Your task to perform on an android device: Empty the shopping cart on ebay. Search for macbook pro 15 inch on ebay, select the first entry, add it to the cart, then select checkout. Image 0: 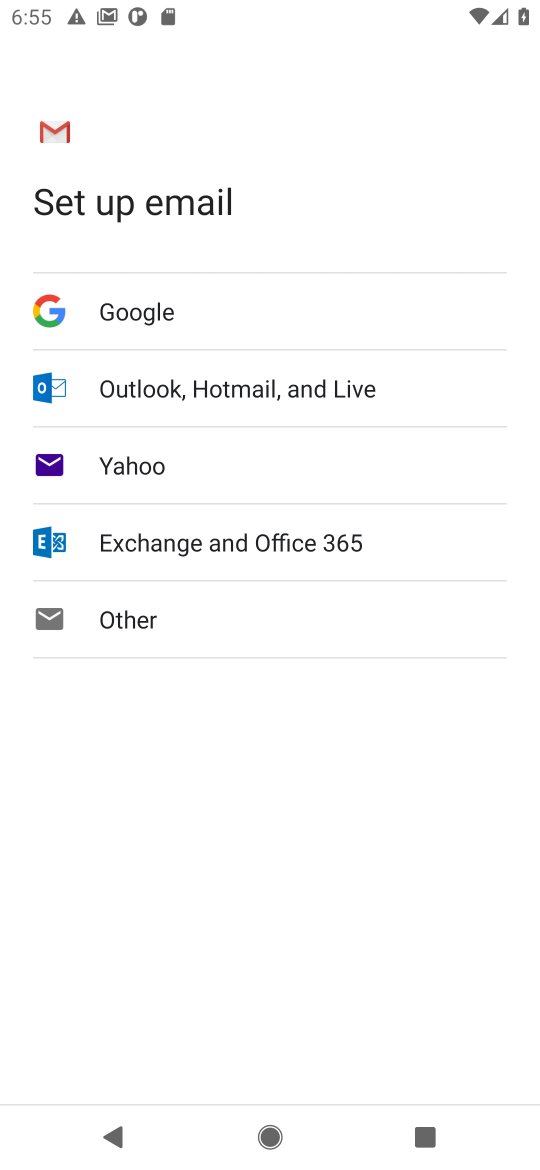
Step 0: press home button
Your task to perform on an android device: Empty the shopping cart on ebay. Search for macbook pro 15 inch on ebay, select the first entry, add it to the cart, then select checkout. Image 1: 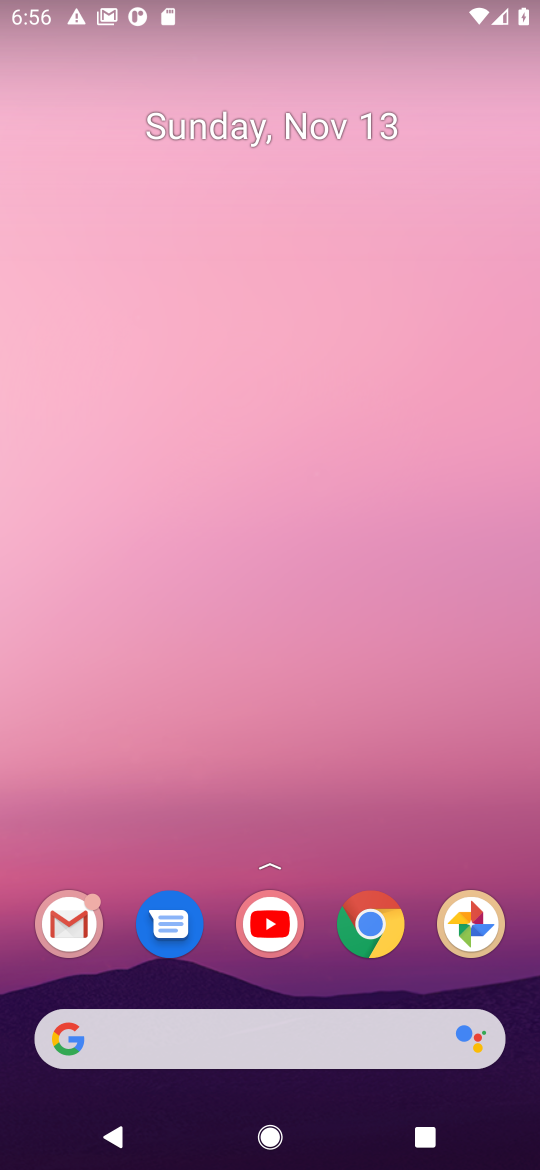
Step 1: click (371, 941)
Your task to perform on an android device: Empty the shopping cart on ebay. Search for macbook pro 15 inch on ebay, select the first entry, add it to the cart, then select checkout. Image 2: 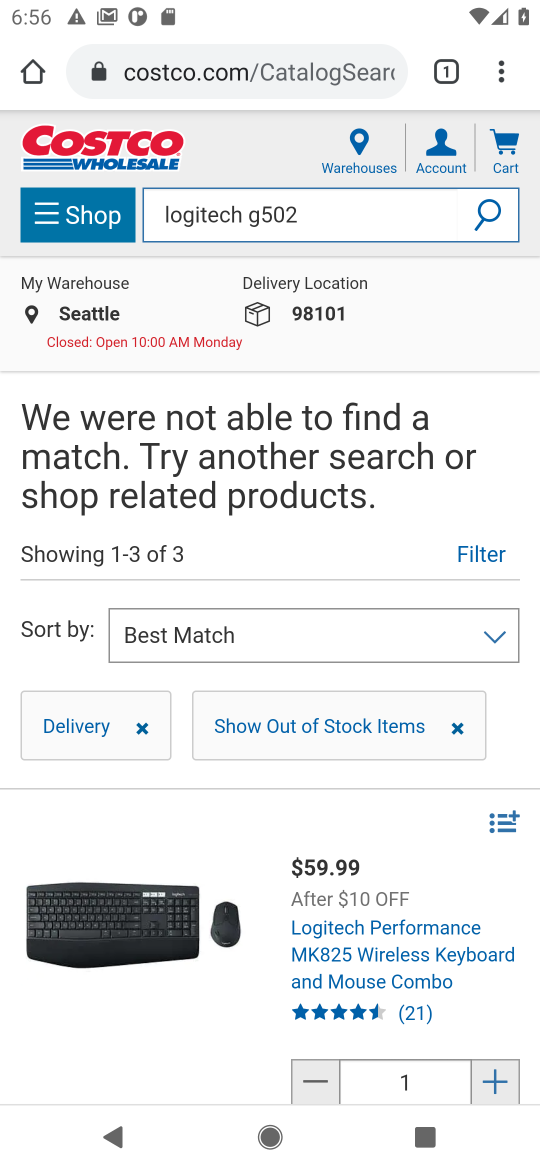
Step 2: click (229, 76)
Your task to perform on an android device: Empty the shopping cart on ebay. Search for macbook pro 15 inch on ebay, select the first entry, add it to the cart, then select checkout. Image 3: 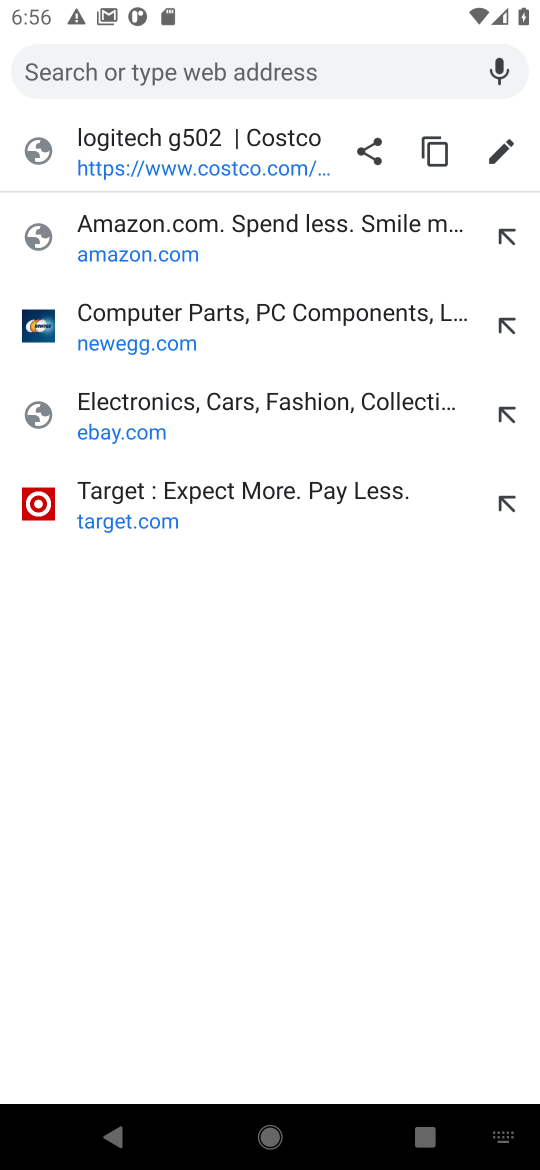
Step 3: click (109, 408)
Your task to perform on an android device: Empty the shopping cart on ebay. Search for macbook pro 15 inch on ebay, select the first entry, add it to the cart, then select checkout. Image 4: 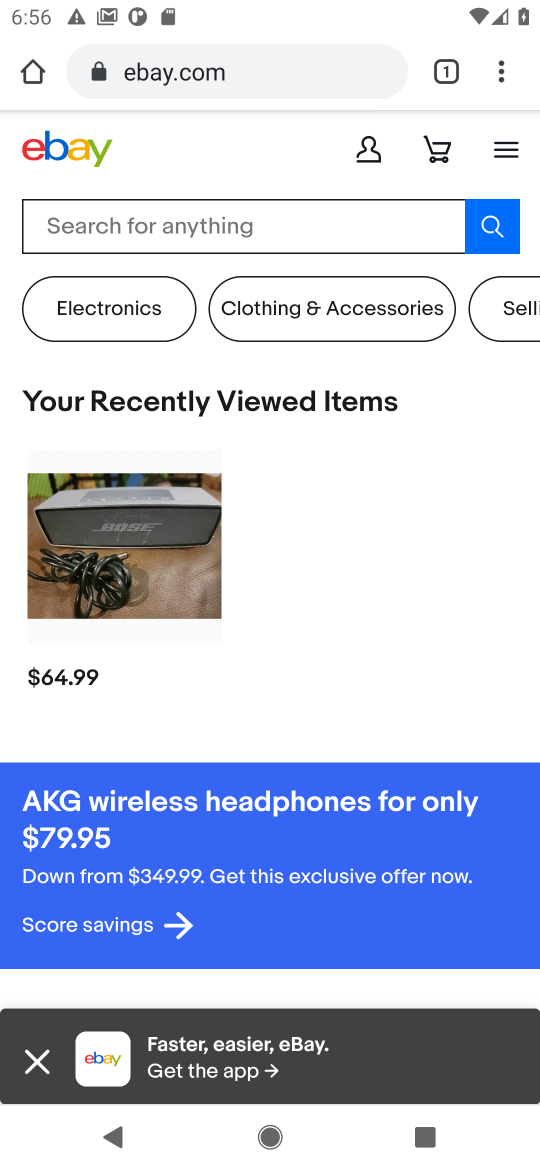
Step 4: click (438, 146)
Your task to perform on an android device: Empty the shopping cart on ebay. Search for macbook pro 15 inch on ebay, select the first entry, add it to the cart, then select checkout. Image 5: 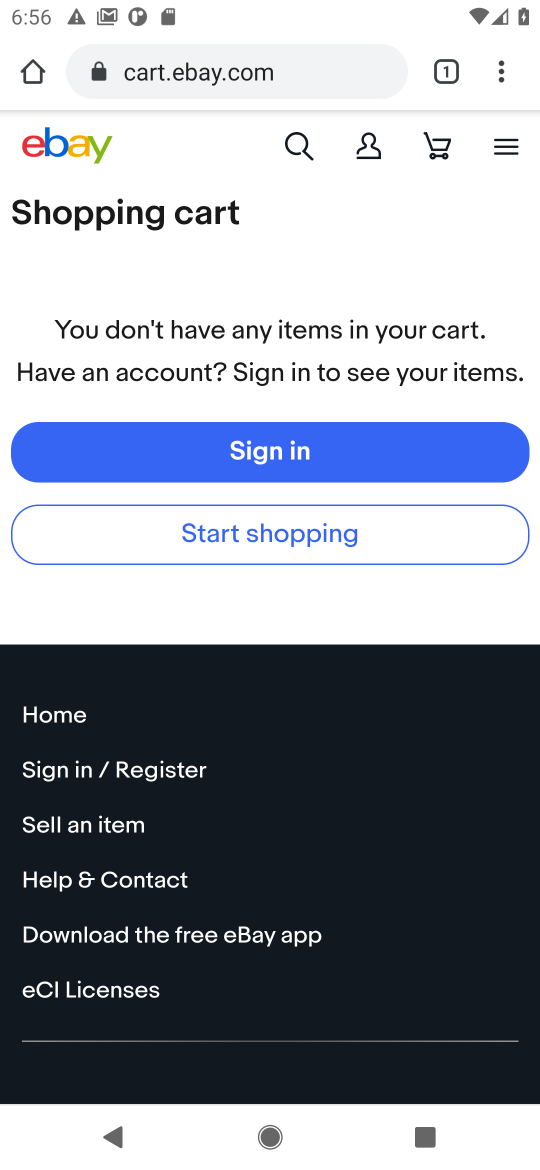
Step 5: click (300, 149)
Your task to perform on an android device: Empty the shopping cart on ebay. Search for macbook pro 15 inch on ebay, select the first entry, add it to the cart, then select checkout. Image 6: 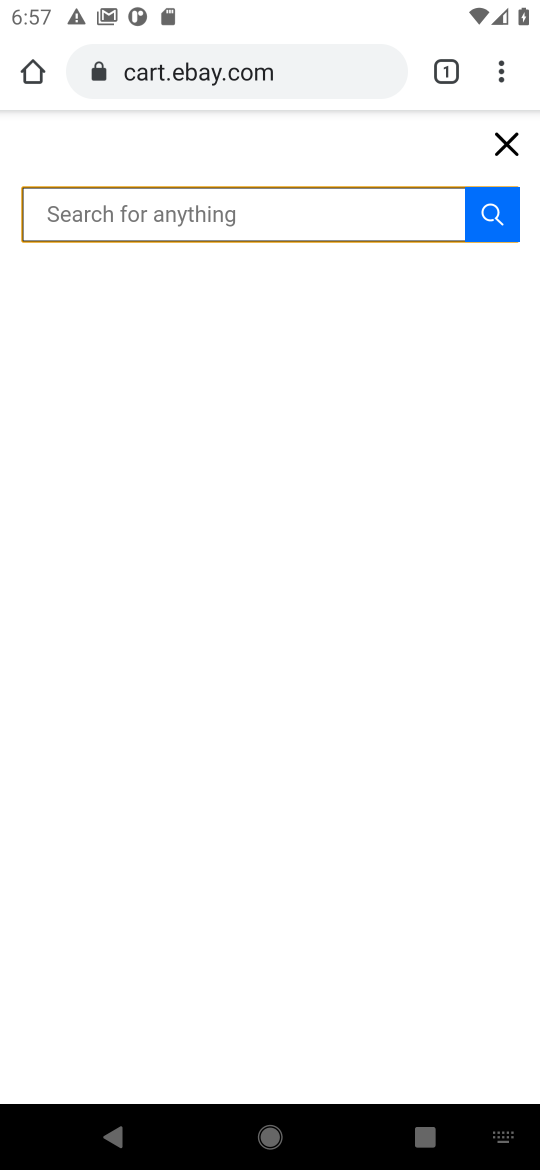
Step 6: type "macbook pro 15 inch"
Your task to perform on an android device: Empty the shopping cart on ebay. Search for macbook pro 15 inch on ebay, select the first entry, add it to the cart, then select checkout. Image 7: 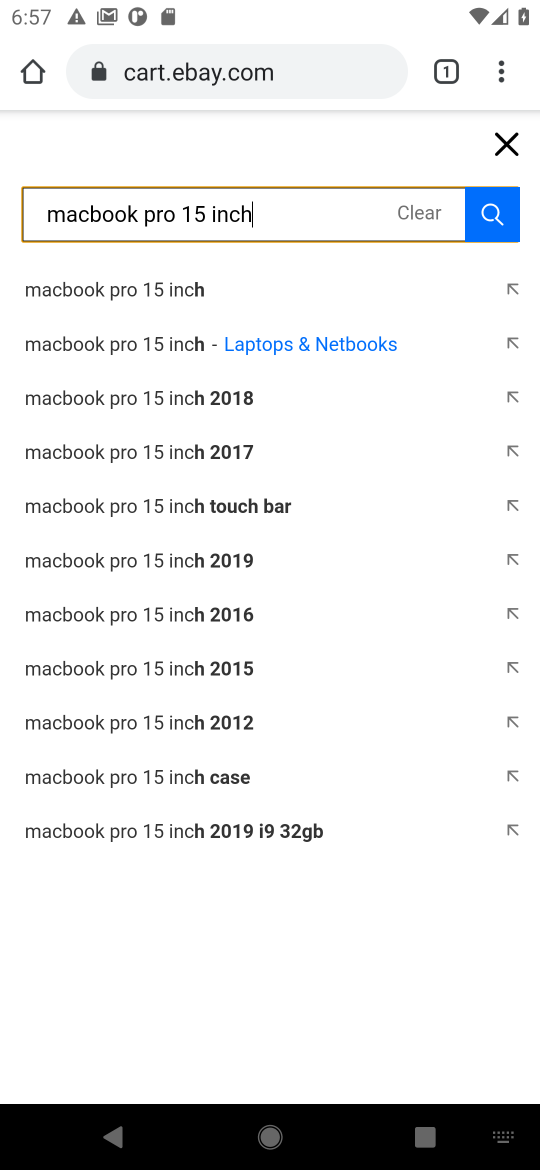
Step 7: click (117, 294)
Your task to perform on an android device: Empty the shopping cart on ebay. Search for macbook pro 15 inch on ebay, select the first entry, add it to the cart, then select checkout. Image 8: 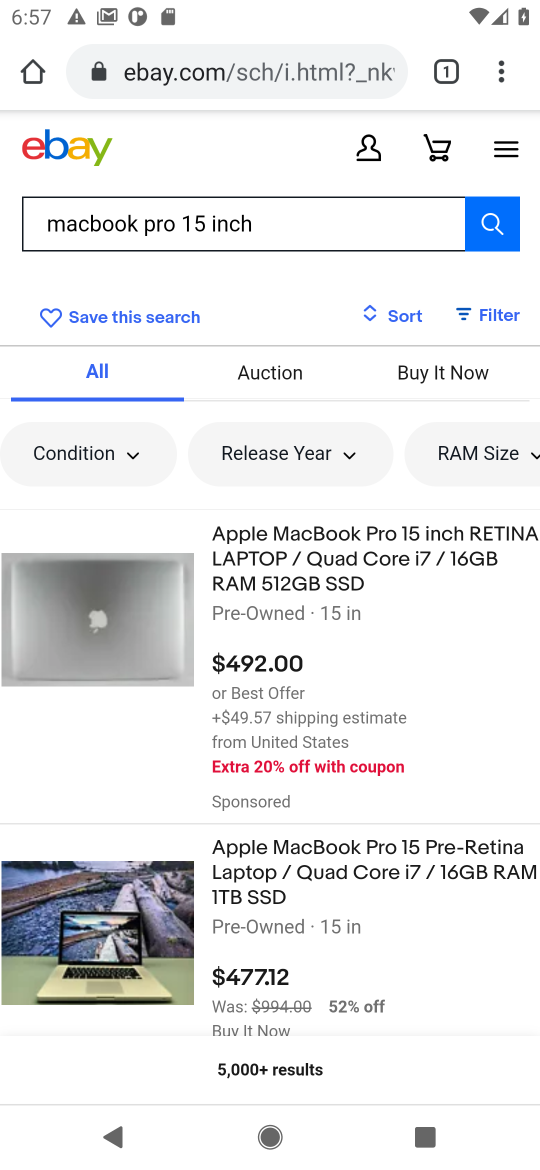
Step 8: click (215, 619)
Your task to perform on an android device: Empty the shopping cart on ebay. Search for macbook pro 15 inch on ebay, select the first entry, add it to the cart, then select checkout. Image 9: 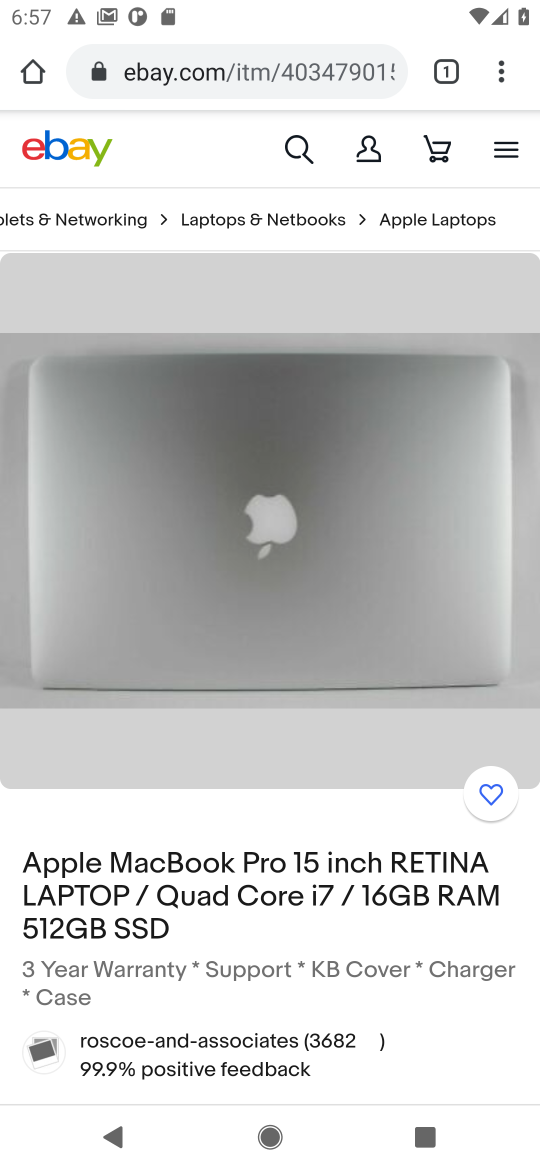
Step 9: drag from (275, 833) to (282, 286)
Your task to perform on an android device: Empty the shopping cart on ebay. Search for macbook pro 15 inch on ebay, select the first entry, add it to the cart, then select checkout. Image 10: 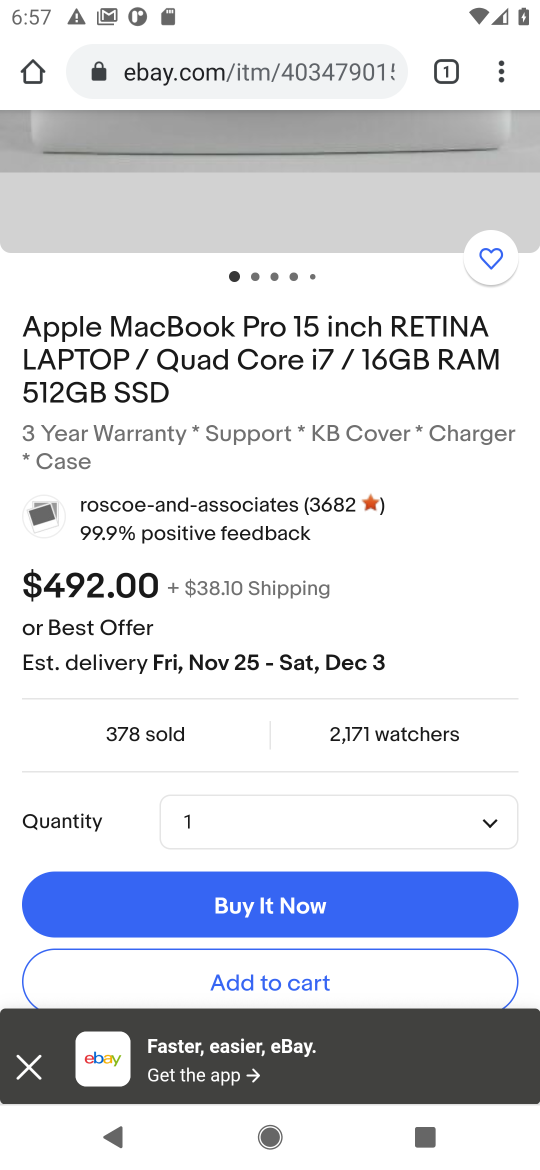
Step 10: click (243, 984)
Your task to perform on an android device: Empty the shopping cart on ebay. Search for macbook pro 15 inch on ebay, select the first entry, add it to the cart, then select checkout. Image 11: 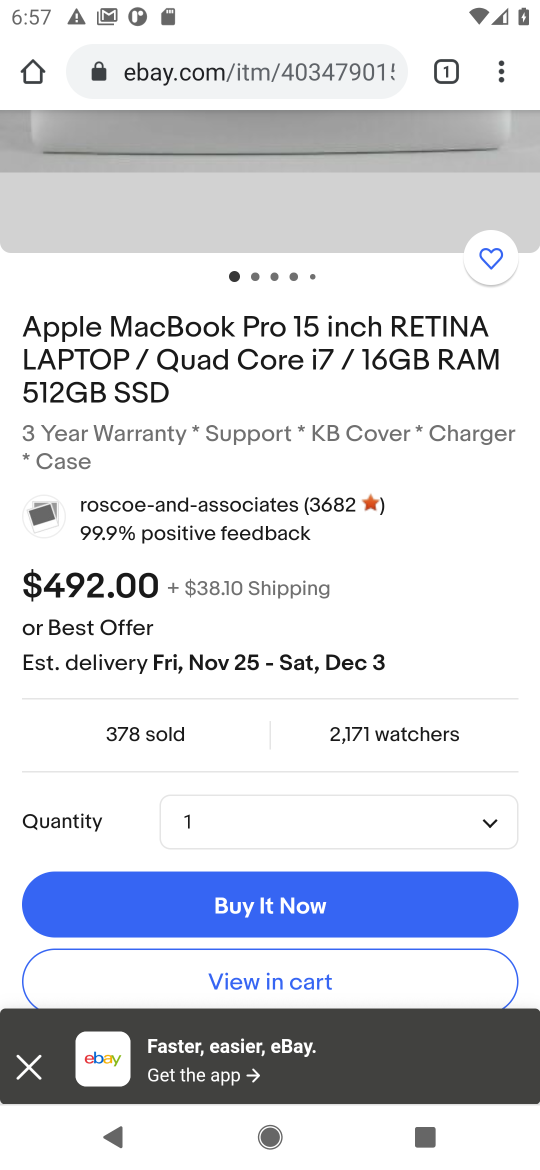
Step 11: click (243, 982)
Your task to perform on an android device: Empty the shopping cart on ebay. Search for macbook pro 15 inch on ebay, select the first entry, add it to the cart, then select checkout. Image 12: 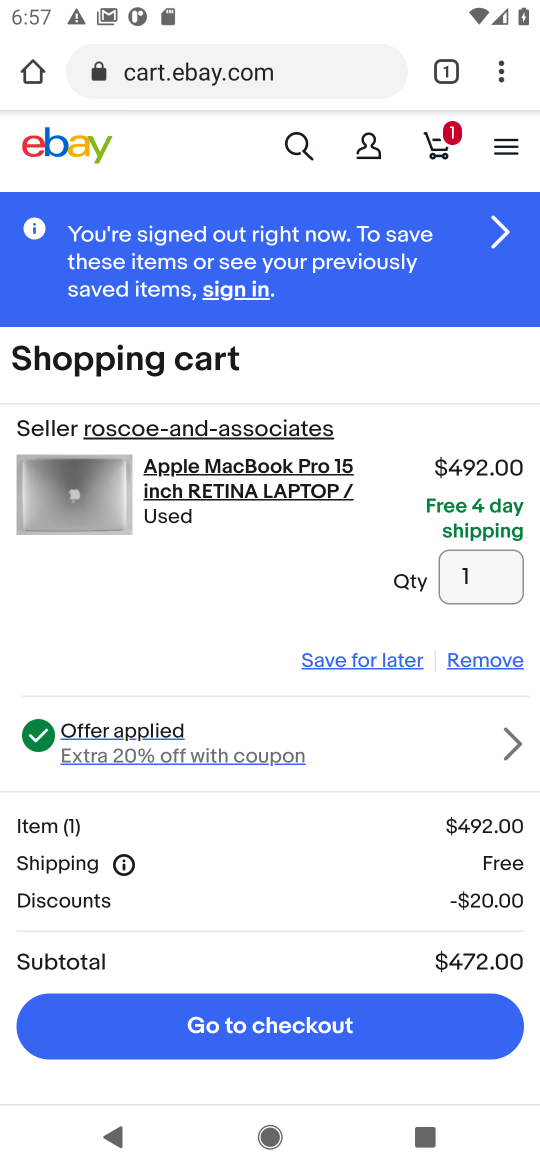
Step 12: click (250, 1030)
Your task to perform on an android device: Empty the shopping cart on ebay. Search for macbook pro 15 inch on ebay, select the first entry, add it to the cart, then select checkout. Image 13: 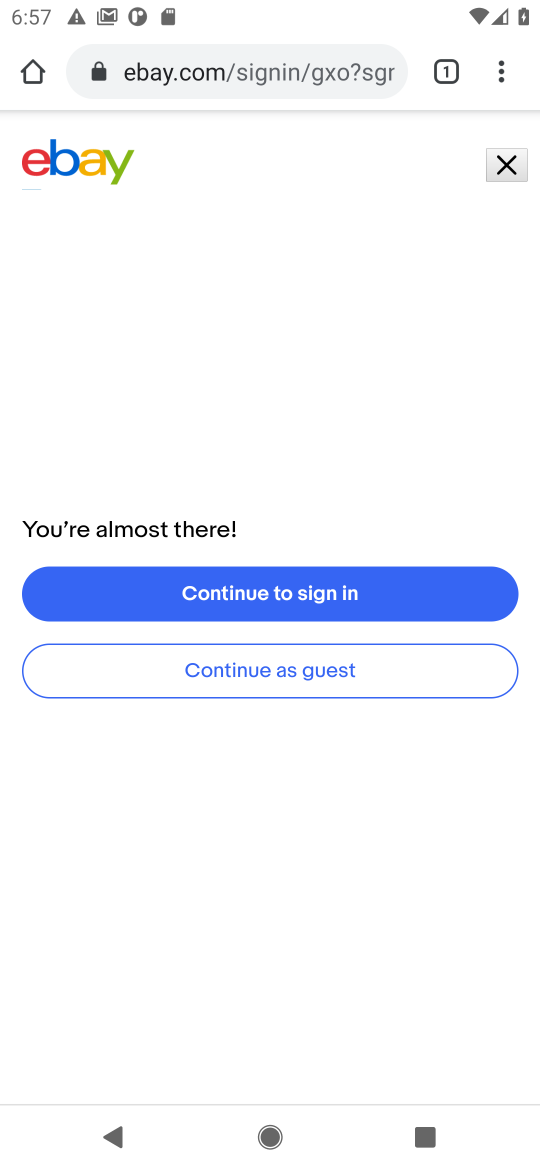
Step 13: task complete